Your task to perform on an android device: turn off improve location accuracy Image 0: 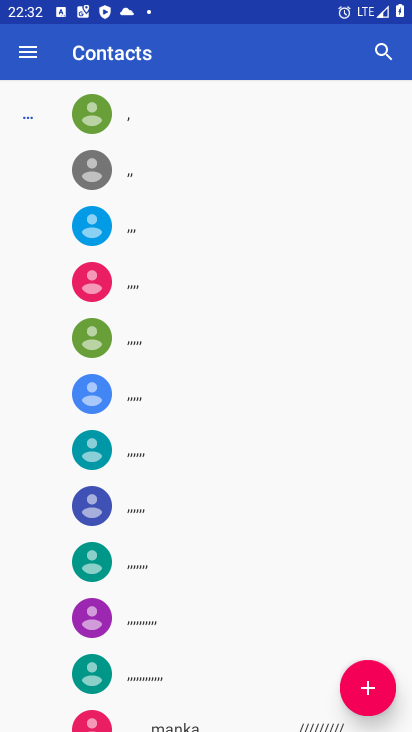
Step 0: press home button
Your task to perform on an android device: turn off improve location accuracy Image 1: 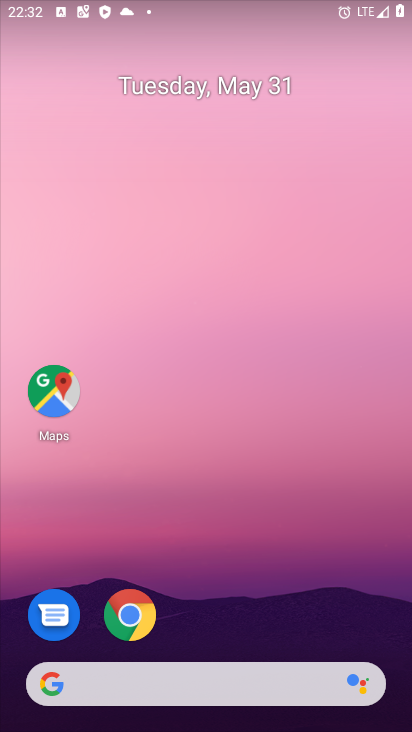
Step 1: drag from (379, 641) to (316, 140)
Your task to perform on an android device: turn off improve location accuracy Image 2: 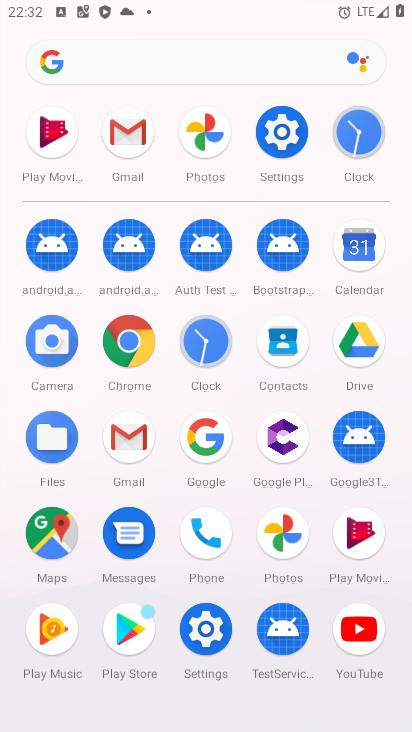
Step 2: click (208, 628)
Your task to perform on an android device: turn off improve location accuracy Image 3: 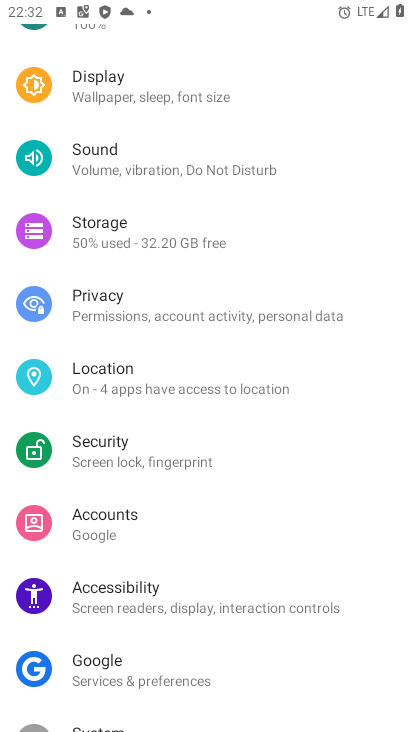
Step 3: click (121, 370)
Your task to perform on an android device: turn off improve location accuracy Image 4: 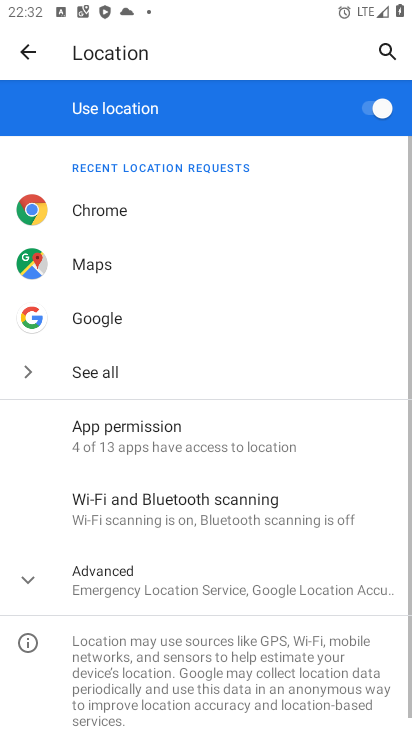
Step 4: click (34, 581)
Your task to perform on an android device: turn off improve location accuracy Image 5: 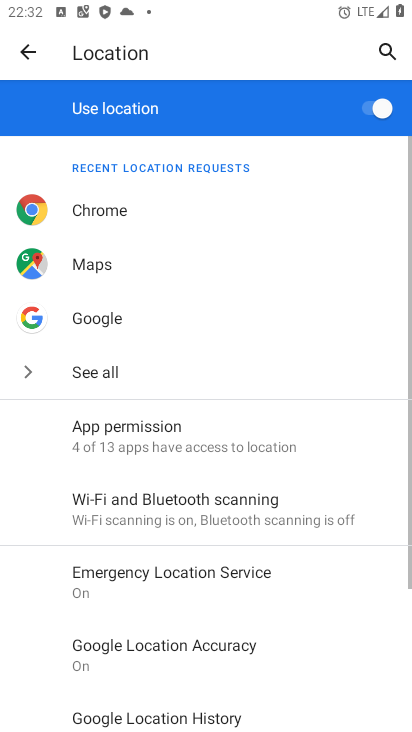
Step 5: drag from (317, 608) to (302, 305)
Your task to perform on an android device: turn off improve location accuracy Image 6: 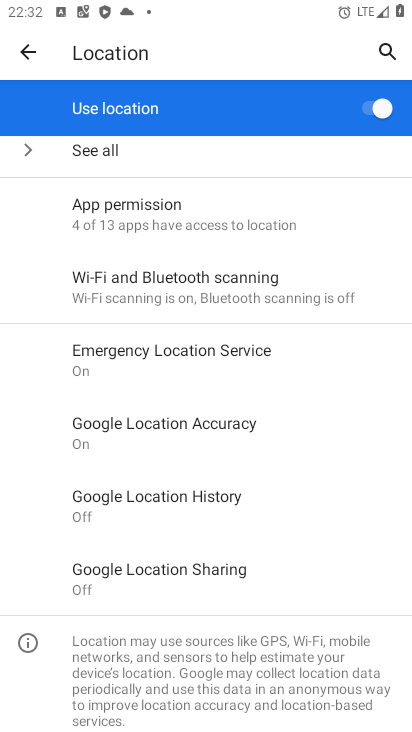
Step 6: click (111, 418)
Your task to perform on an android device: turn off improve location accuracy Image 7: 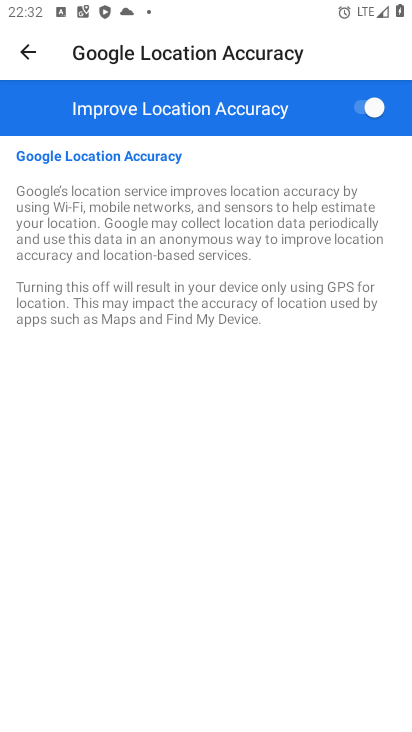
Step 7: click (358, 105)
Your task to perform on an android device: turn off improve location accuracy Image 8: 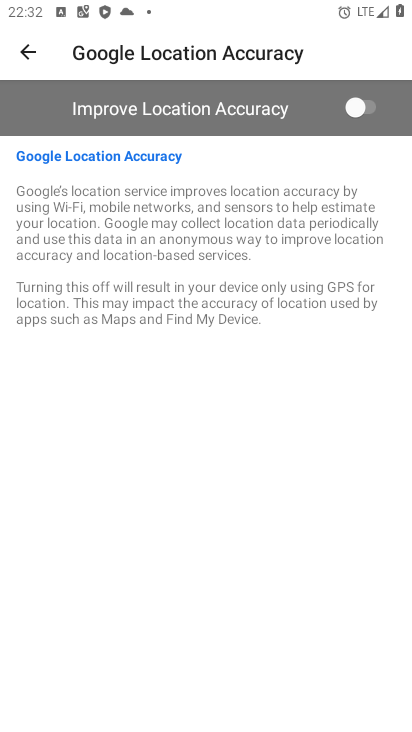
Step 8: task complete